Your task to perform on an android device: Open Android settings Image 0: 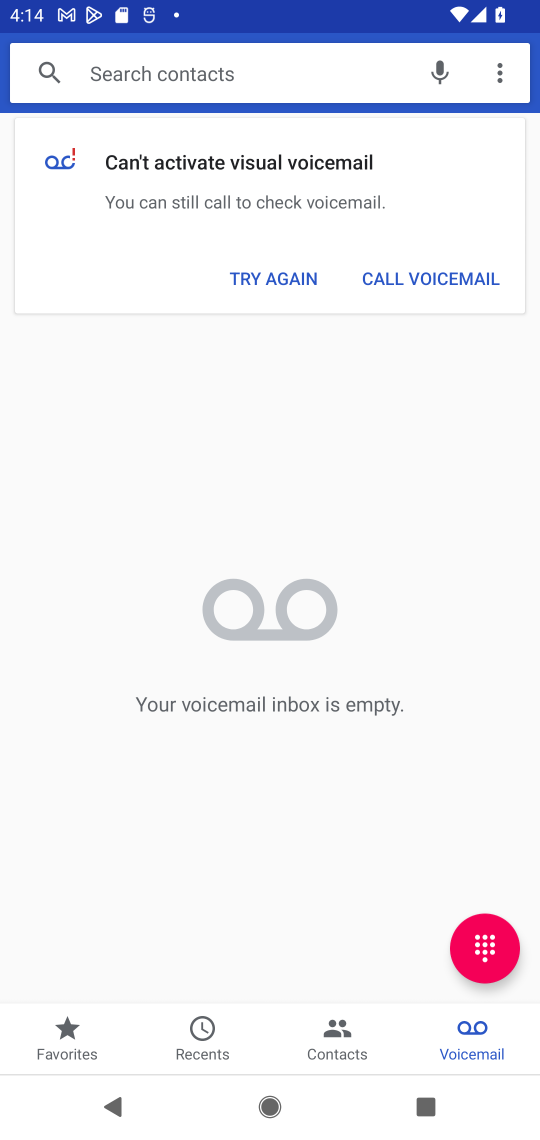
Step 0: press home button
Your task to perform on an android device: Open Android settings Image 1: 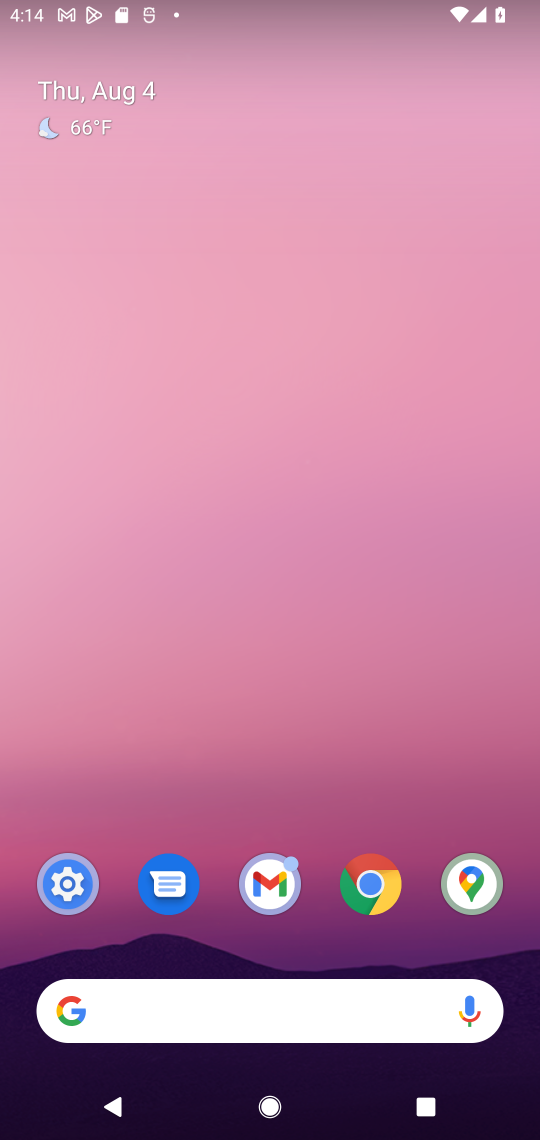
Step 1: click (85, 887)
Your task to perform on an android device: Open Android settings Image 2: 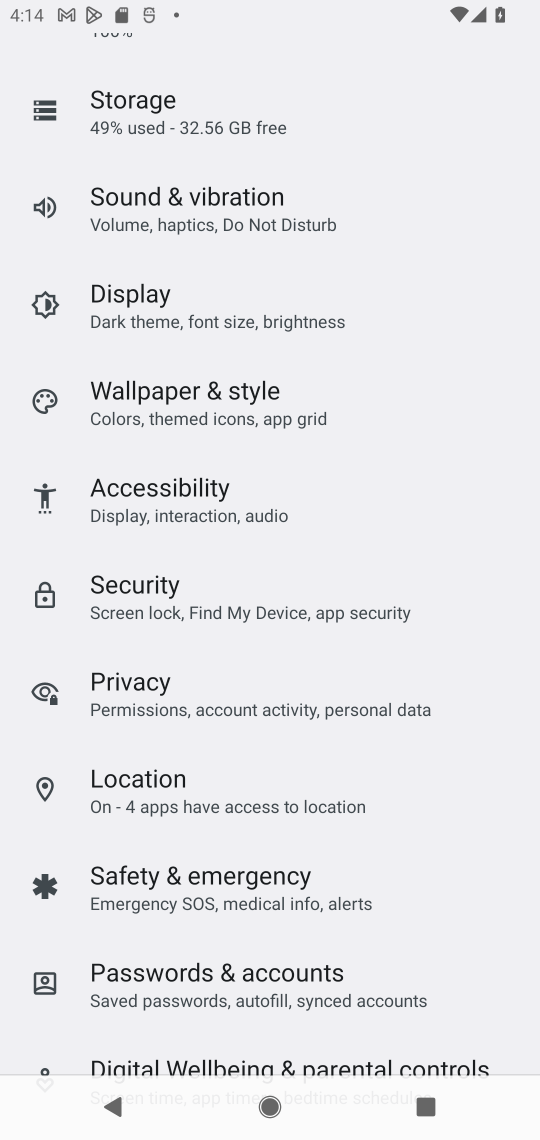
Step 2: task complete